Your task to perform on an android device: Go to Maps Image 0: 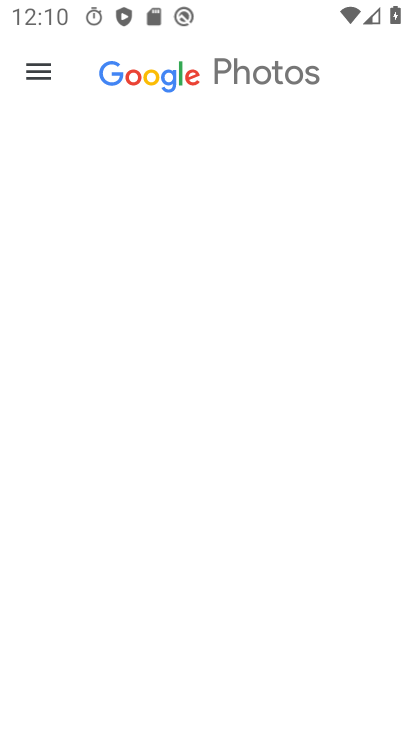
Step 0: drag from (324, 702) to (260, 181)
Your task to perform on an android device: Go to Maps Image 1: 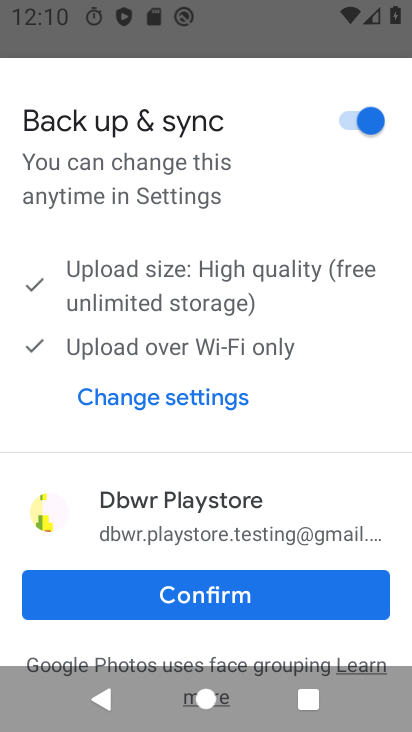
Step 1: click (182, 602)
Your task to perform on an android device: Go to Maps Image 2: 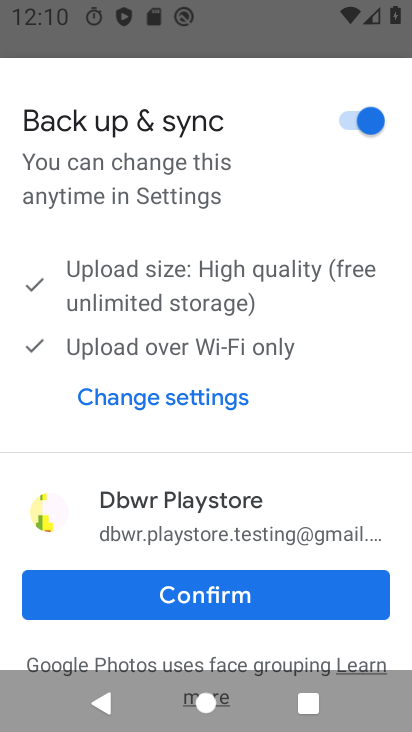
Step 2: click (187, 602)
Your task to perform on an android device: Go to Maps Image 3: 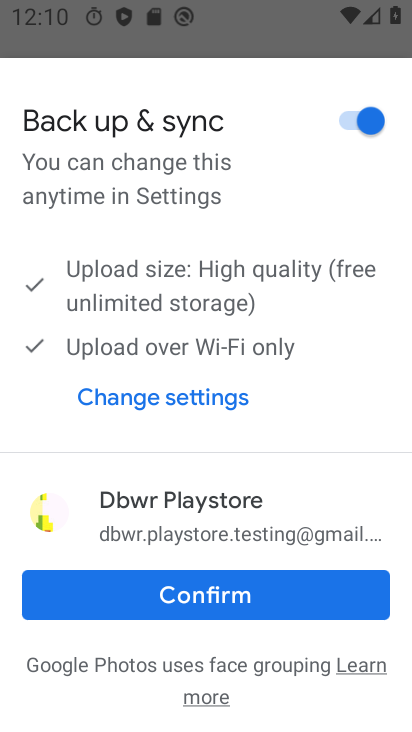
Step 3: click (191, 602)
Your task to perform on an android device: Go to Maps Image 4: 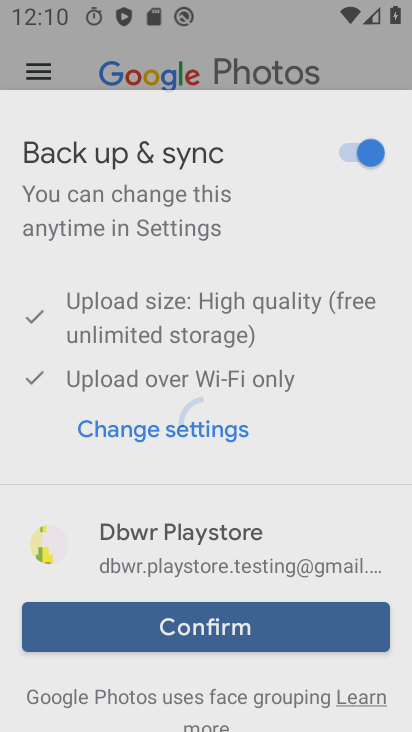
Step 4: click (191, 602)
Your task to perform on an android device: Go to Maps Image 5: 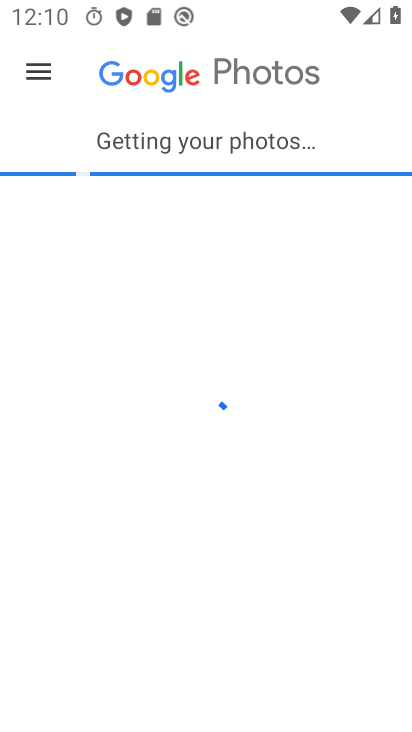
Step 5: click (192, 601)
Your task to perform on an android device: Go to Maps Image 6: 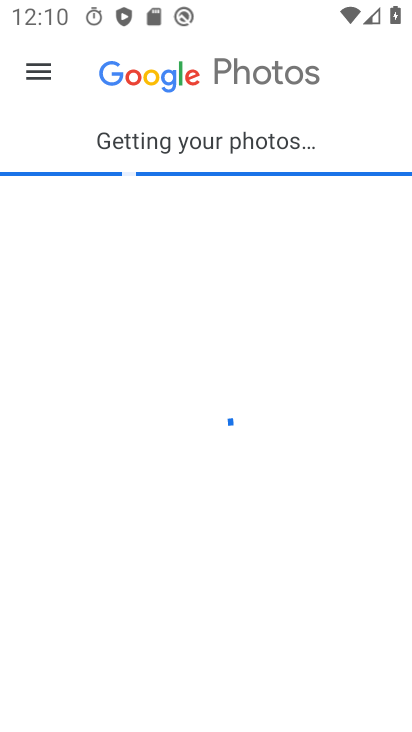
Step 6: click (193, 600)
Your task to perform on an android device: Go to Maps Image 7: 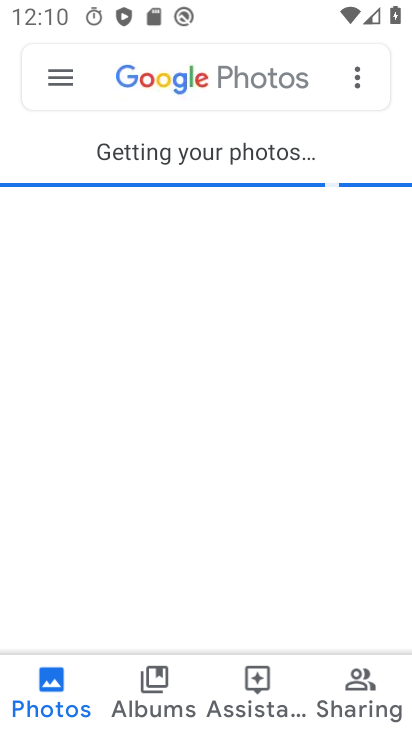
Step 7: press back button
Your task to perform on an android device: Go to Maps Image 8: 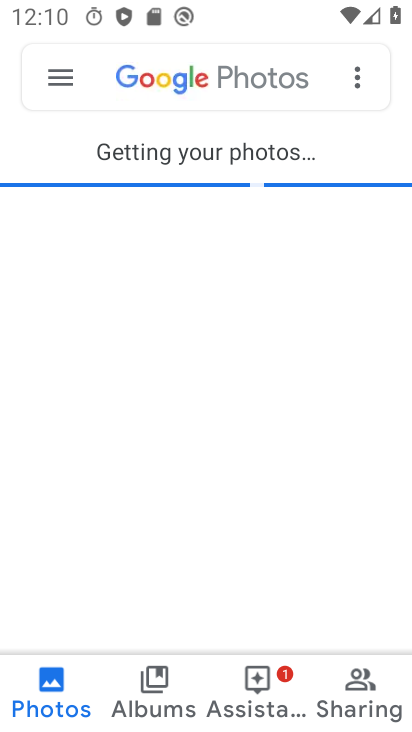
Step 8: press back button
Your task to perform on an android device: Go to Maps Image 9: 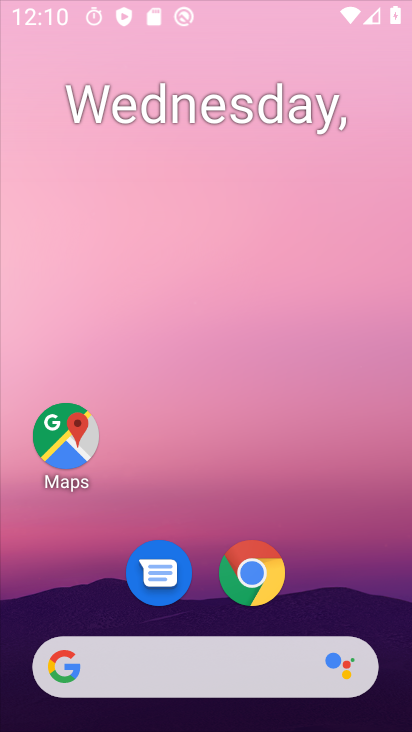
Step 9: press back button
Your task to perform on an android device: Go to Maps Image 10: 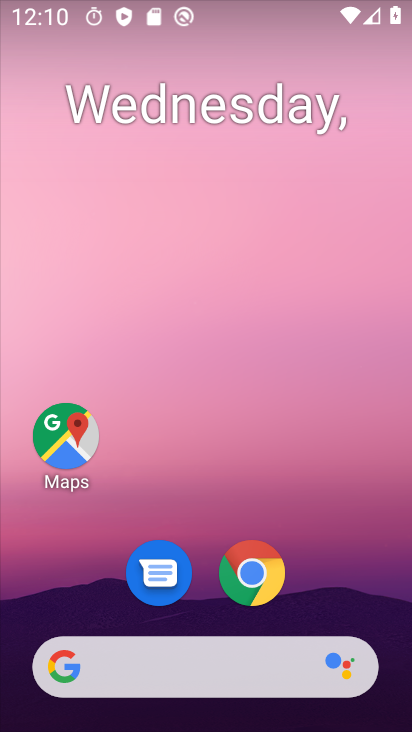
Step 10: drag from (370, 553) to (305, 29)
Your task to perform on an android device: Go to Maps Image 11: 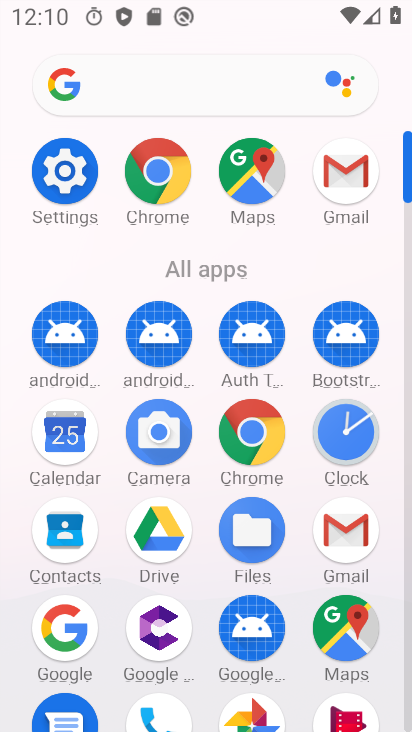
Step 11: click (256, 177)
Your task to perform on an android device: Go to Maps Image 12: 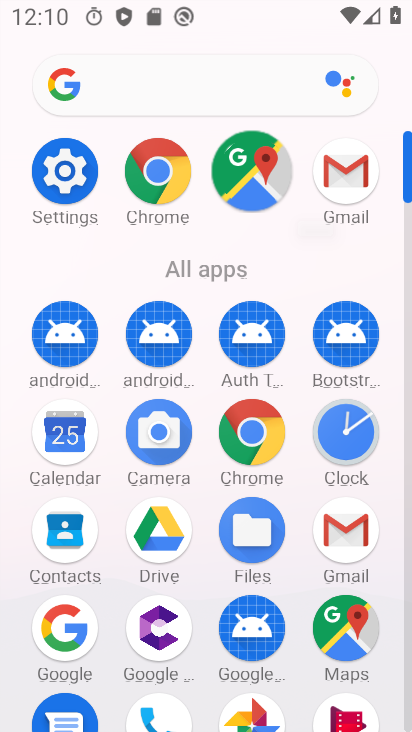
Step 12: click (263, 174)
Your task to perform on an android device: Go to Maps Image 13: 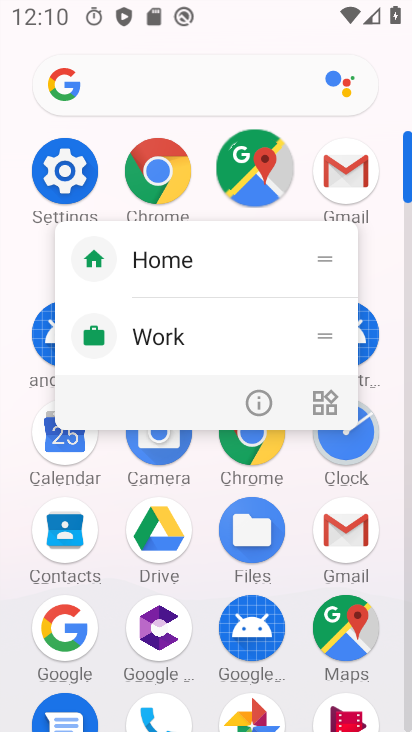
Step 13: click (263, 174)
Your task to perform on an android device: Go to Maps Image 14: 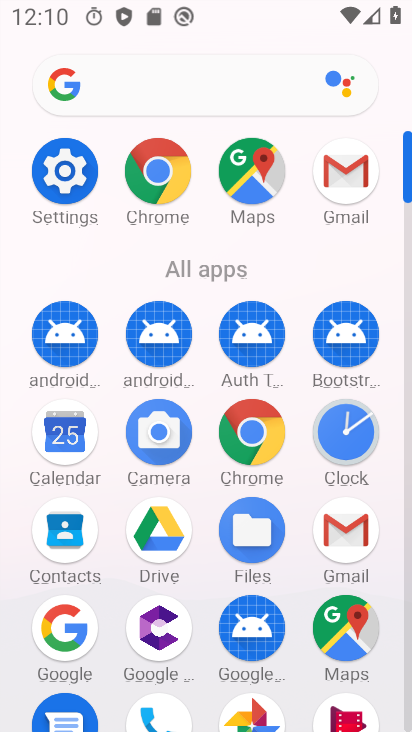
Step 14: click (269, 171)
Your task to perform on an android device: Go to Maps Image 15: 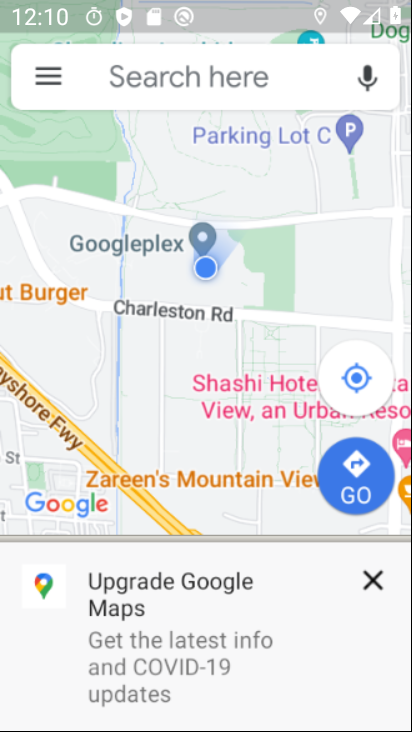
Step 15: click (270, 167)
Your task to perform on an android device: Go to Maps Image 16: 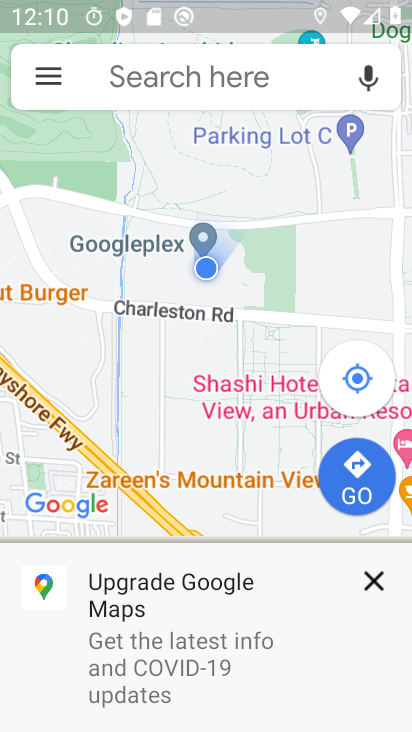
Step 16: task complete